Your task to perform on an android device: Go to Reddit.com Image 0: 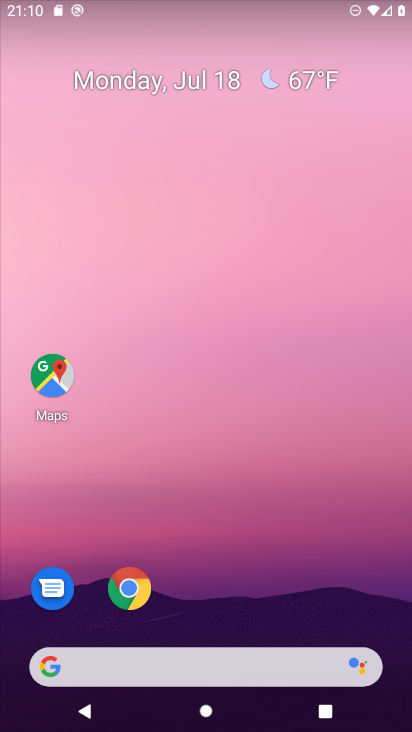
Step 0: click (129, 588)
Your task to perform on an android device: Go to Reddit.com Image 1: 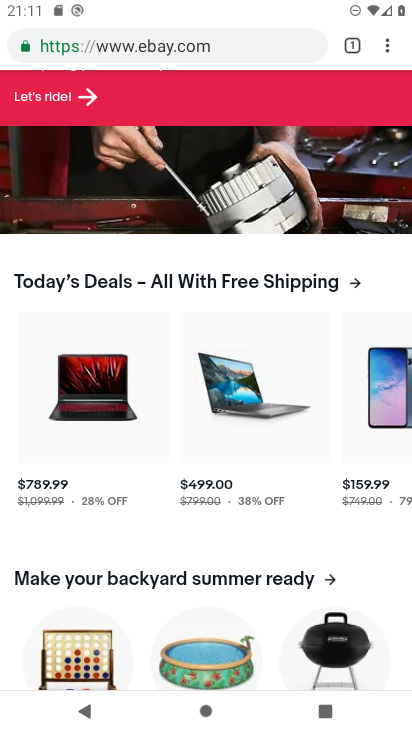
Step 1: click (230, 36)
Your task to perform on an android device: Go to Reddit.com Image 2: 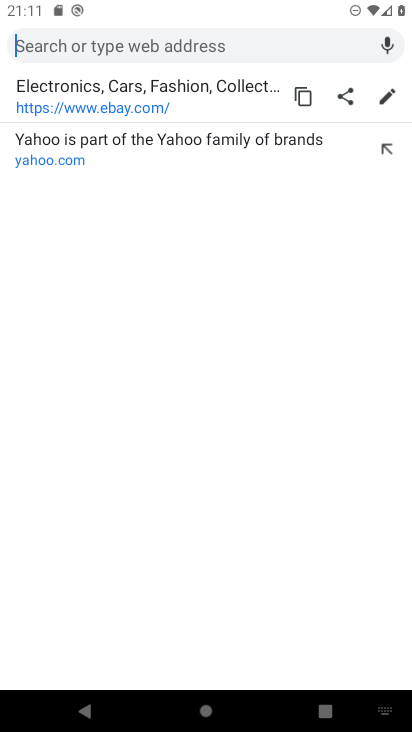
Step 2: type "Reddit.com"
Your task to perform on an android device: Go to Reddit.com Image 3: 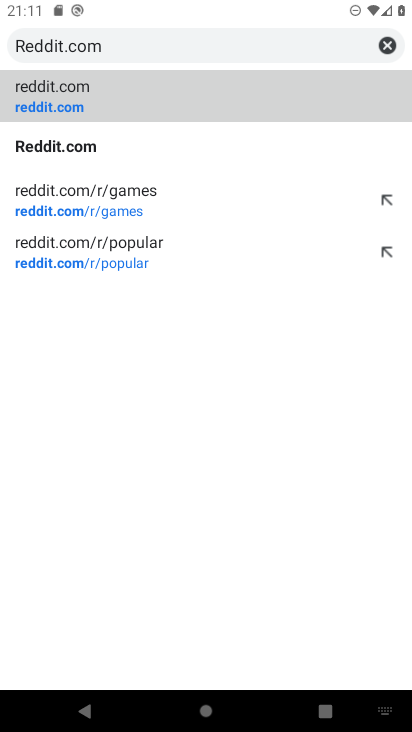
Step 3: click (56, 98)
Your task to perform on an android device: Go to Reddit.com Image 4: 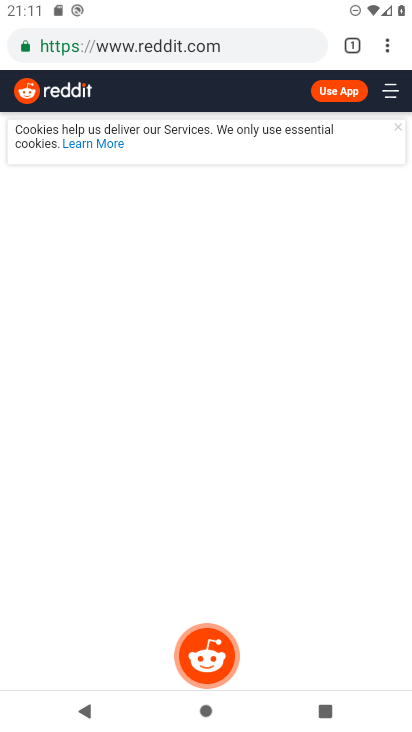
Step 4: task complete